Your task to perform on an android device: add a contact Image 0: 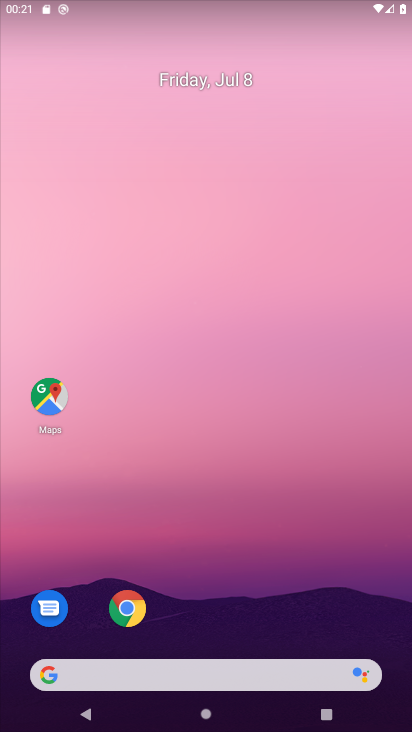
Step 0: drag from (274, 639) to (295, 68)
Your task to perform on an android device: add a contact Image 1: 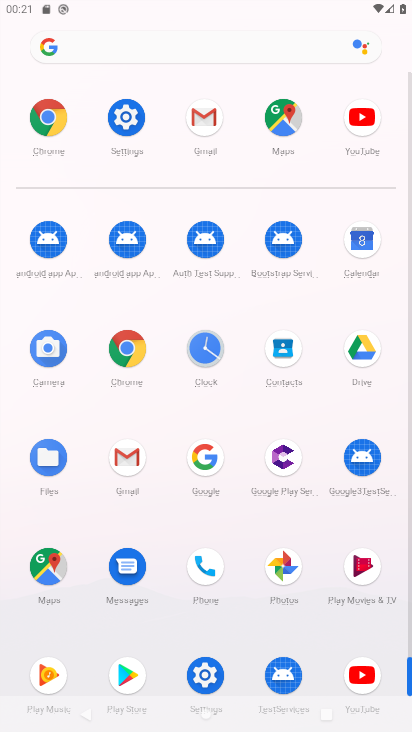
Step 1: click (210, 552)
Your task to perform on an android device: add a contact Image 2: 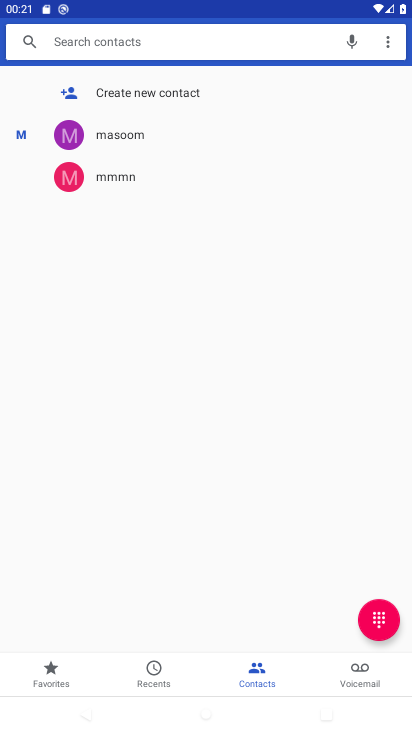
Step 2: click (178, 91)
Your task to perform on an android device: add a contact Image 3: 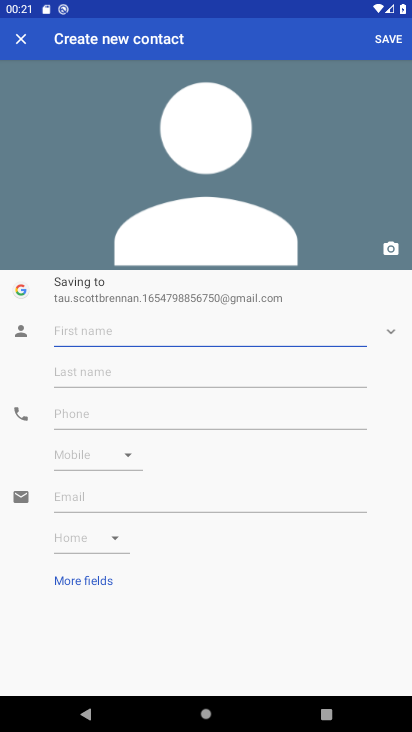
Step 3: click (195, 329)
Your task to perform on an android device: add a contact Image 4: 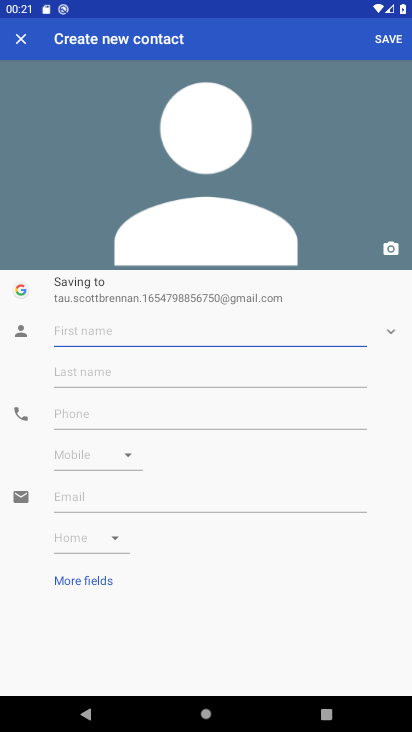
Step 4: type "shagun   "
Your task to perform on an android device: add a contact Image 5: 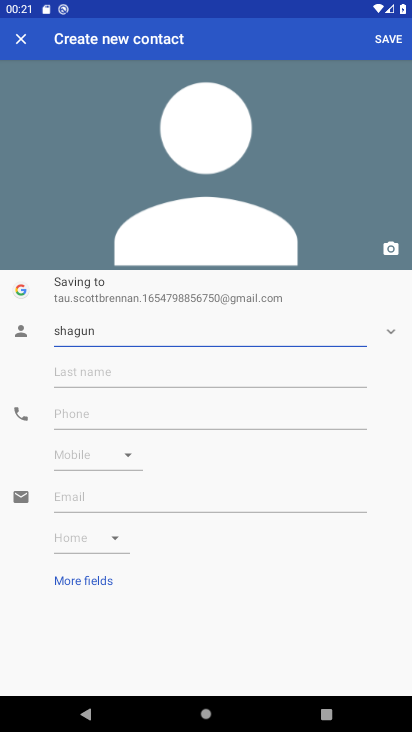
Step 5: click (115, 418)
Your task to perform on an android device: add a contact Image 6: 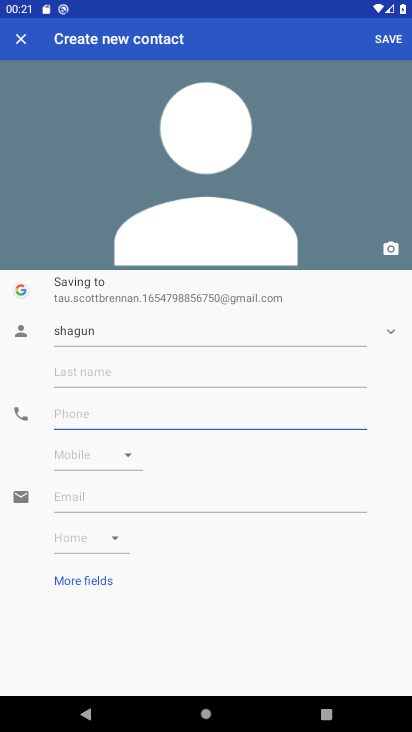
Step 6: type "0909090909090 "
Your task to perform on an android device: add a contact Image 7: 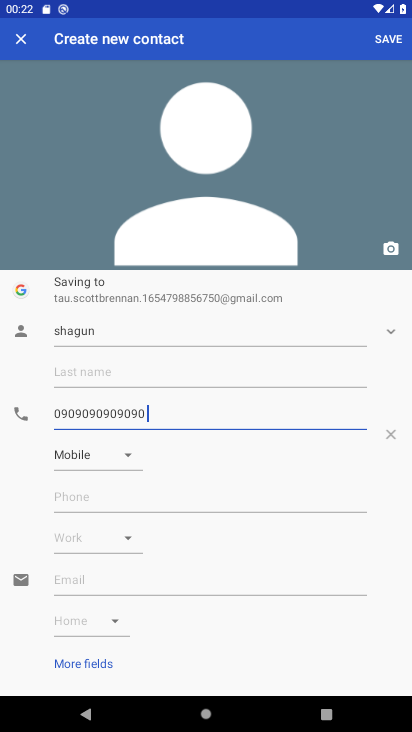
Step 7: click (391, 21)
Your task to perform on an android device: add a contact Image 8: 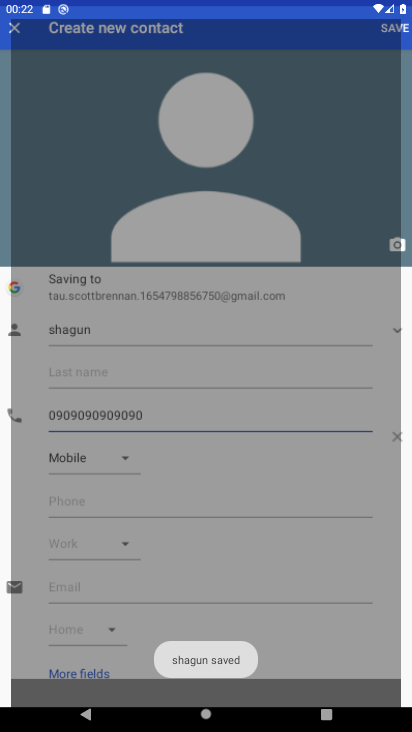
Step 8: task complete